Your task to perform on an android device: Open Google Image 0: 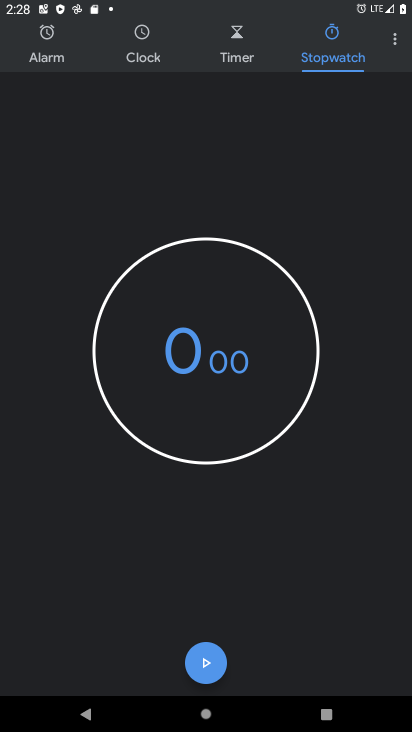
Step 0: press home button
Your task to perform on an android device: Open Google Image 1: 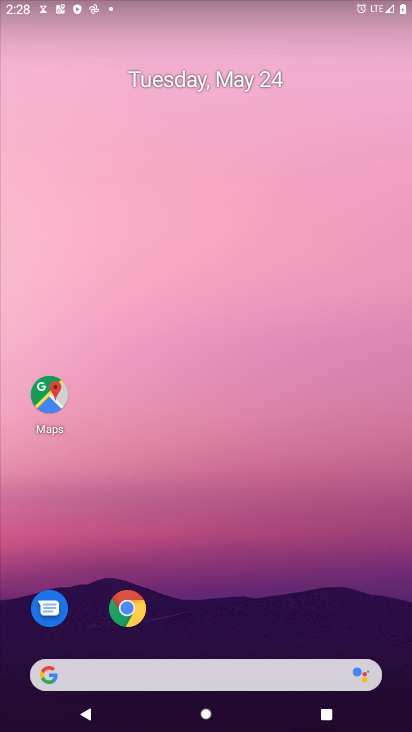
Step 1: drag from (249, 701) to (223, 306)
Your task to perform on an android device: Open Google Image 2: 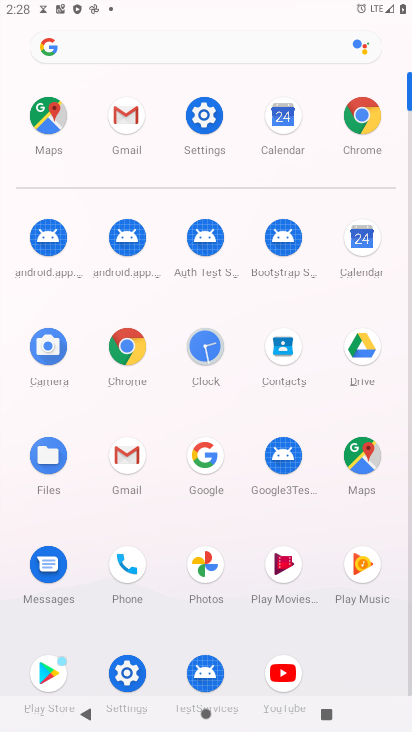
Step 2: click (48, 46)
Your task to perform on an android device: Open Google Image 3: 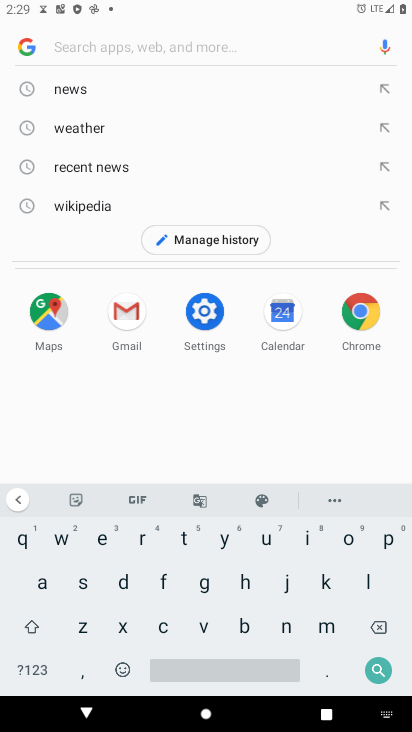
Step 3: click (27, 55)
Your task to perform on an android device: Open Google Image 4: 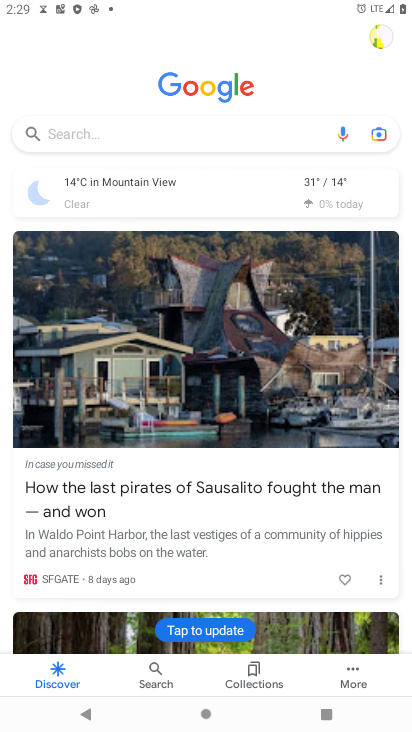
Step 4: task complete